Your task to perform on an android device: Open Google Image 0: 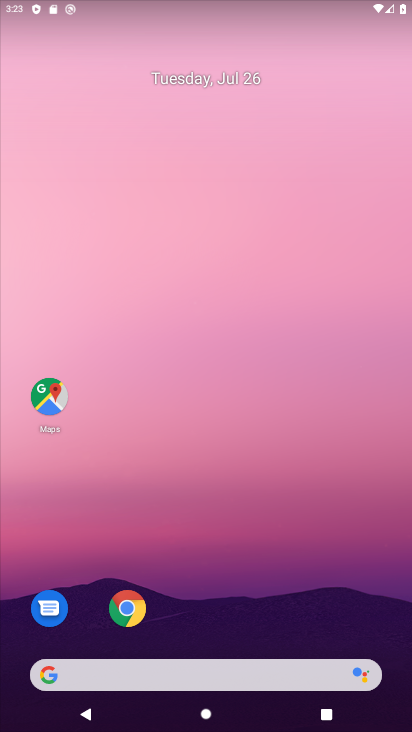
Step 0: drag from (214, 635) to (399, 308)
Your task to perform on an android device: Open Google Image 1: 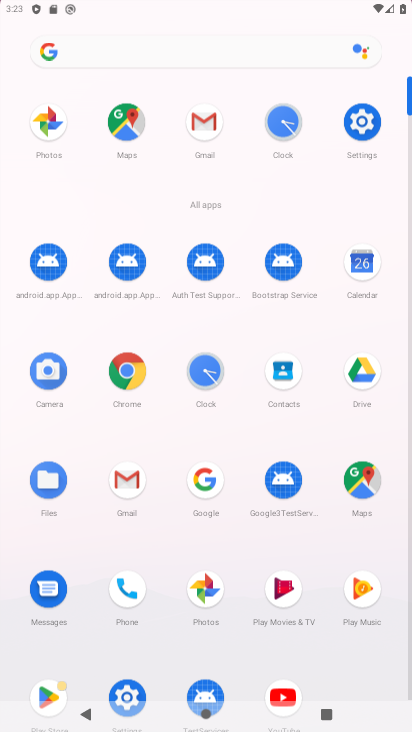
Step 1: click (193, 494)
Your task to perform on an android device: Open Google Image 2: 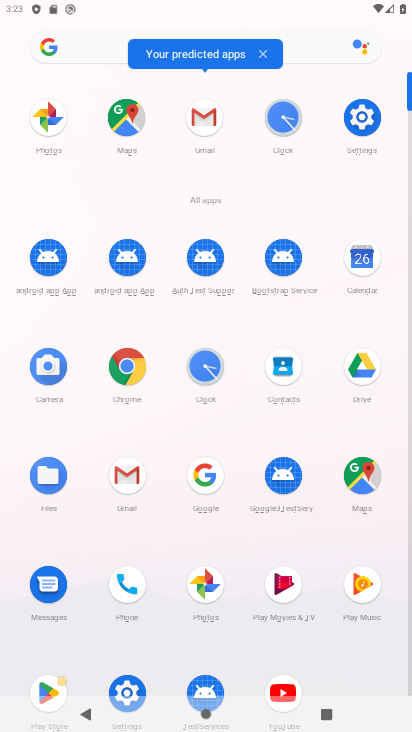
Step 2: click (203, 484)
Your task to perform on an android device: Open Google Image 3: 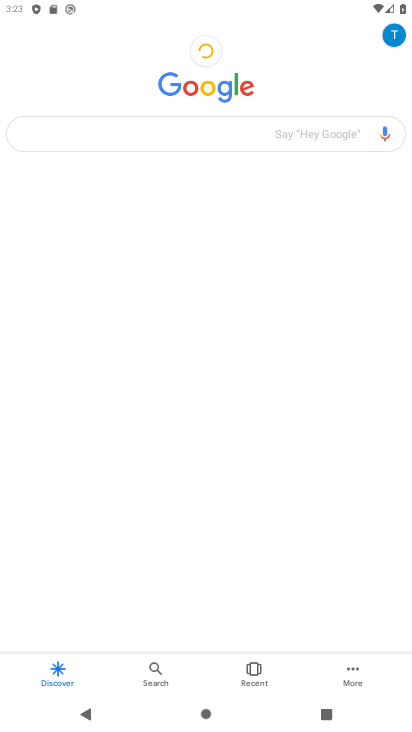
Step 3: task complete